Your task to perform on an android device: Search for "macbook" on walmart, select the first entry, and add it to the cart. Image 0: 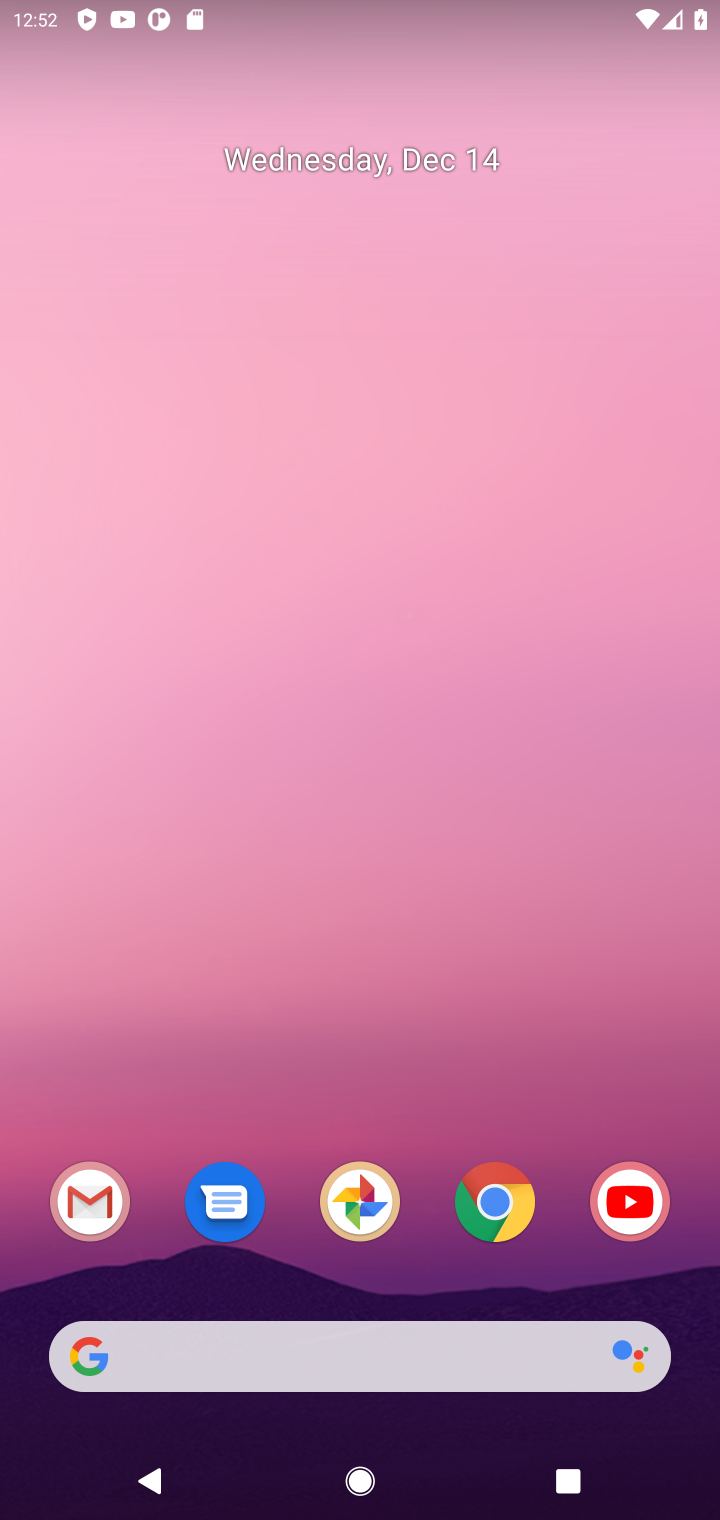
Step 0: task complete